Your task to perform on an android device: Open the calendar and show me this week's events Image 0: 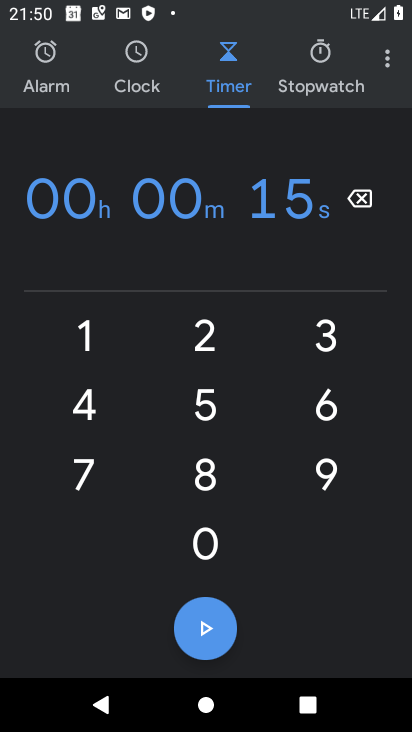
Step 0: press home button
Your task to perform on an android device: Open the calendar and show me this week's events Image 1: 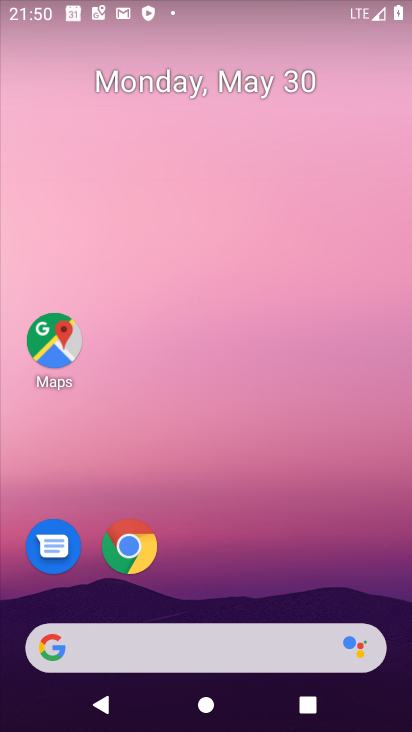
Step 1: drag from (335, 568) to (326, 126)
Your task to perform on an android device: Open the calendar and show me this week's events Image 2: 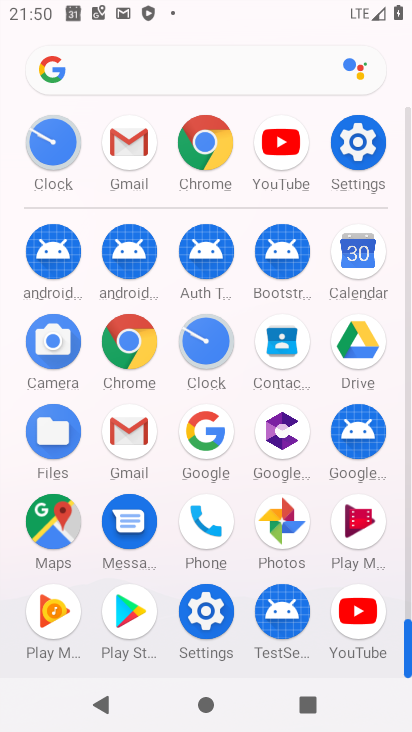
Step 2: click (368, 267)
Your task to perform on an android device: Open the calendar and show me this week's events Image 3: 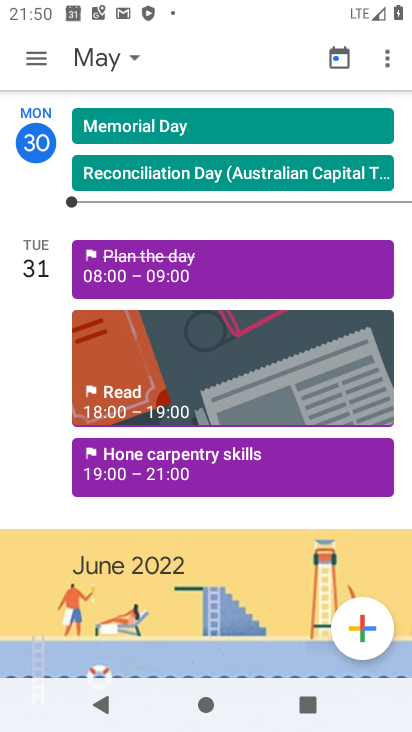
Step 3: click (103, 55)
Your task to perform on an android device: Open the calendar and show me this week's events Image 4: 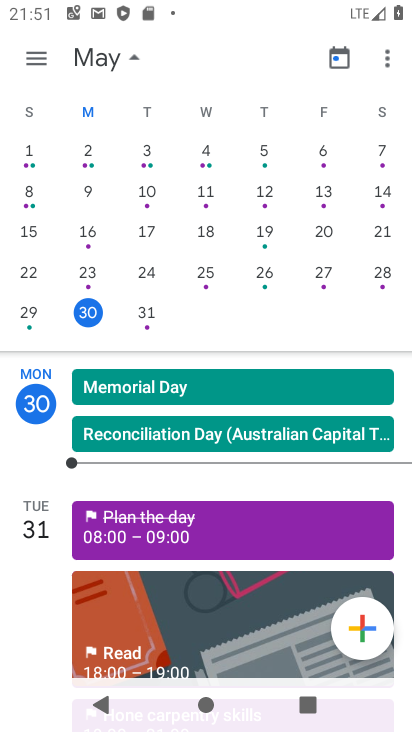
Step 4: drag from (334, 222) to (0, 206)
Your task to perform on an android device: Open the calendar and show me this week's events Image 5: 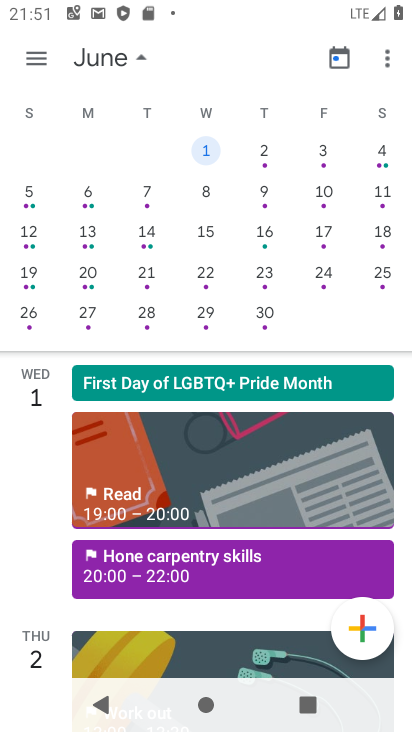
Step 5: click (212, 152)
Your task to perform on an android device: Open the calendar and show me this week's events Image 6: 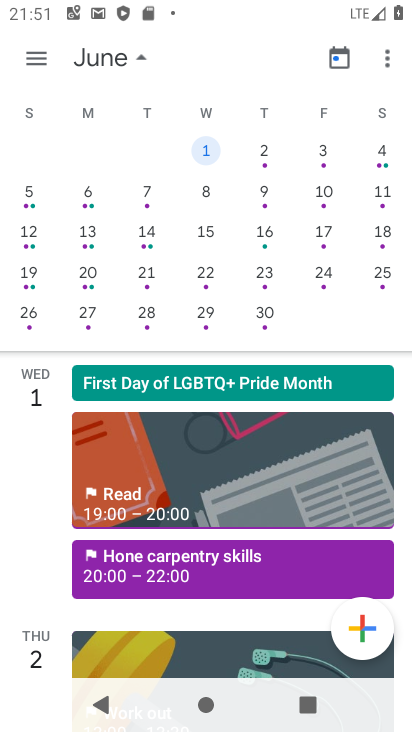
Step 6: click (247, 148)
Your task to perform on an android device: Open the calendar and show me this week's events Image 7: 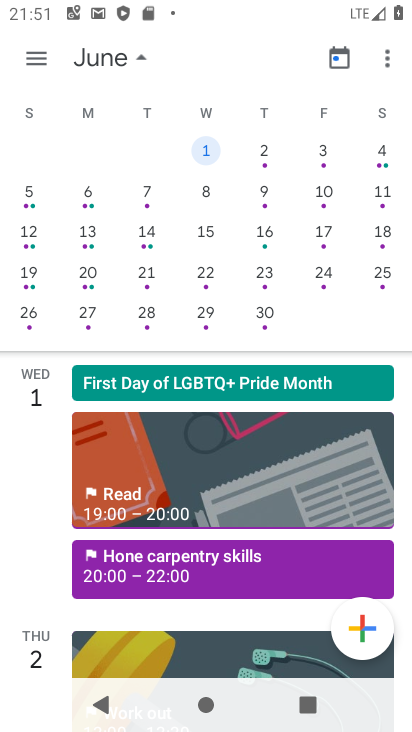
Step 7: click (268, 153)
Your task to perform on an android device: Open the calendar and show me this week's events Image 8: 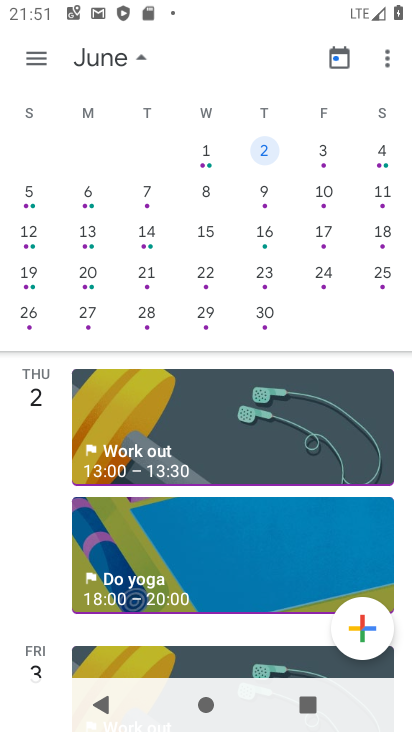
Step 8: click (323, 153)
Your task to perform on an android device: Open the calendar and show me this week's events Image 9: 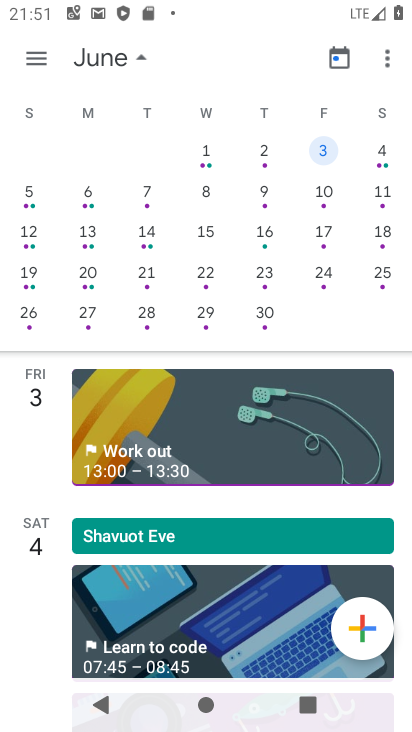
Step 9: click (393, 156)
Your task to perform on an android device: Open the calendar and show me this week's events Image 10: 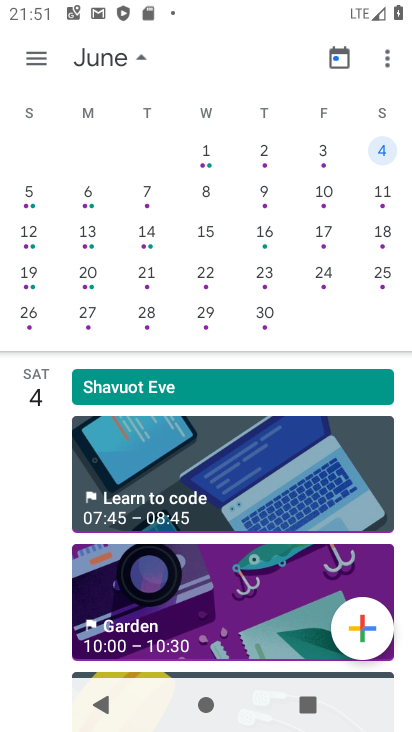
Step 10: task complete